Your task to perform on an android device: Go to Yahoo.com Image 0: 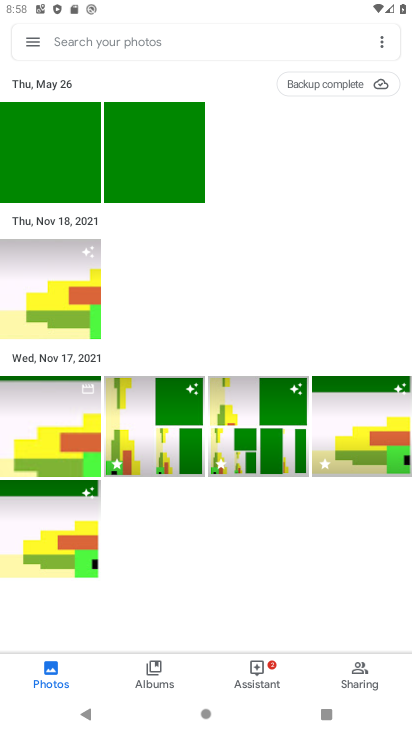
Step 0: press home button
Your task to perform on an android device: Go to Yahoo.com Image 1: 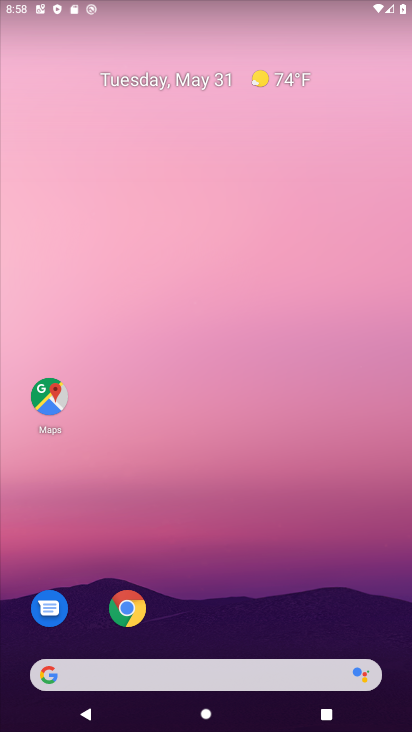
Step 1: drag from (212, 626) to (140, 21)
Your task to perform on an android device: Go to Yahoo.com Image 2: 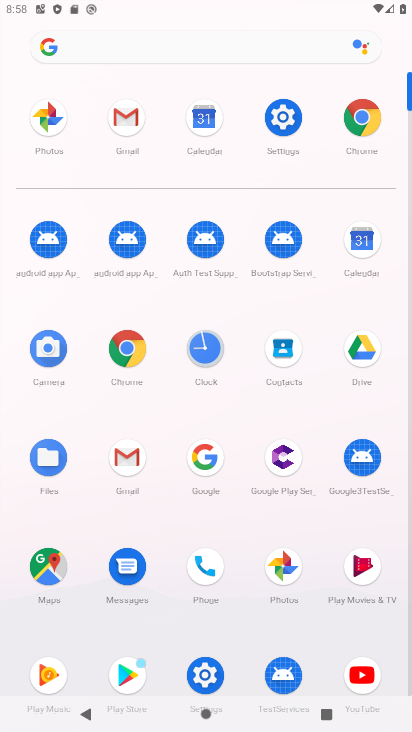
Step 2: click (117, 371)
Your task to perform on an android device: Go to Yahoo.com Image 3: 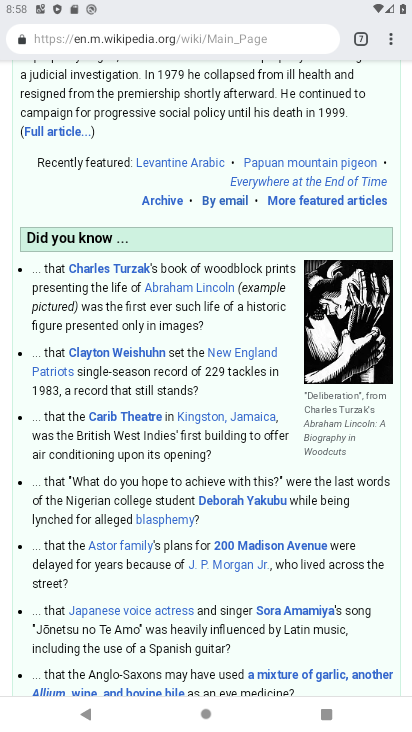
Step 3: click (355, 35)
Your task to perform on an android device: Go to Yahoo.com Image 4: 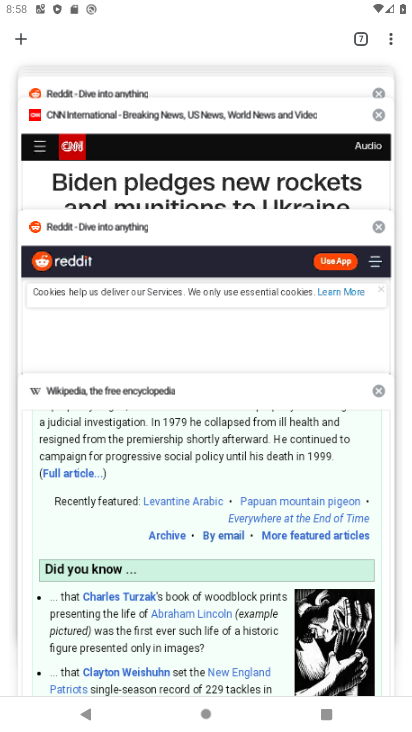
Step 4: click (21, 46)
Your task to perform on an android device: Go to Yahoo.com Image 5: 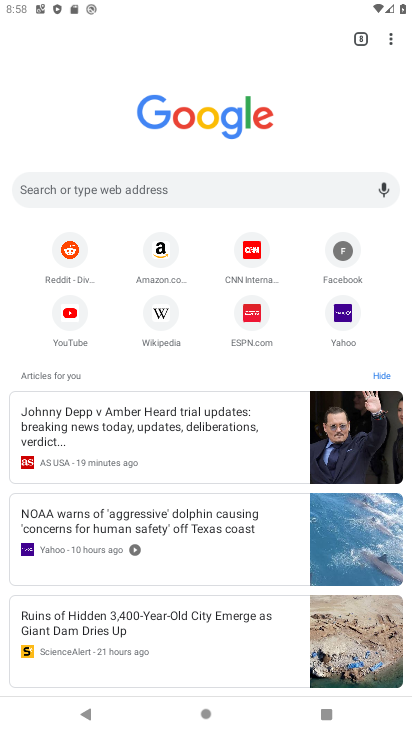
Step 5: click (339, 316)
Your task to perform on an android device: Go to Yahoo.com Image 6: 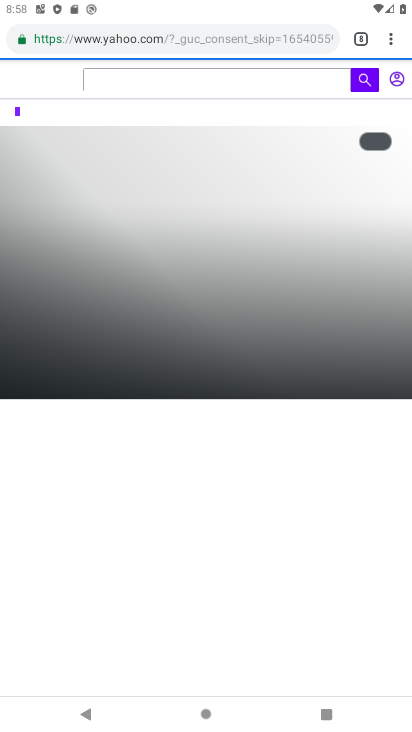
Step 6: task complete